Your task to perform on an android device: refresh tabs in the chrome app Image 0: 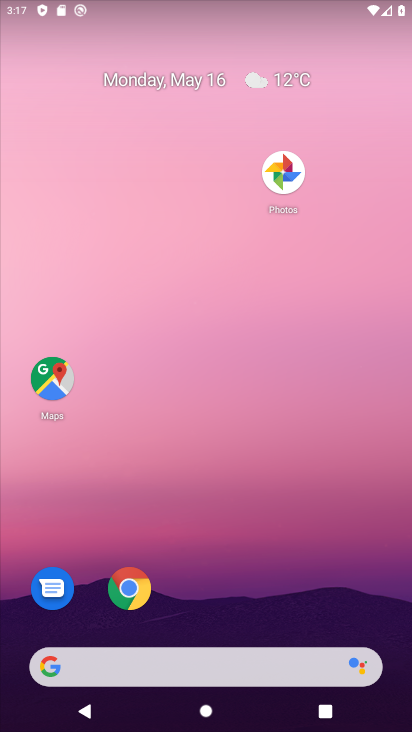
Step 0: click (127, 600)
Your task to perform on an android device: refresh tabs in the chrome app Image 1: 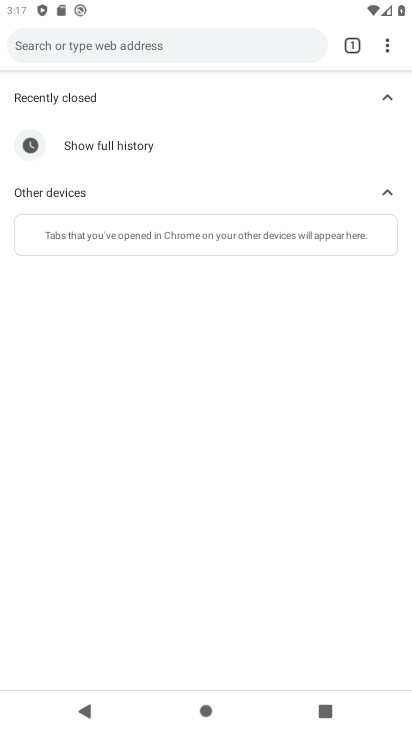
Step 1: click (376, 55)
Your task to perform on an android device: refresh tabs in the chrome app Image 2: 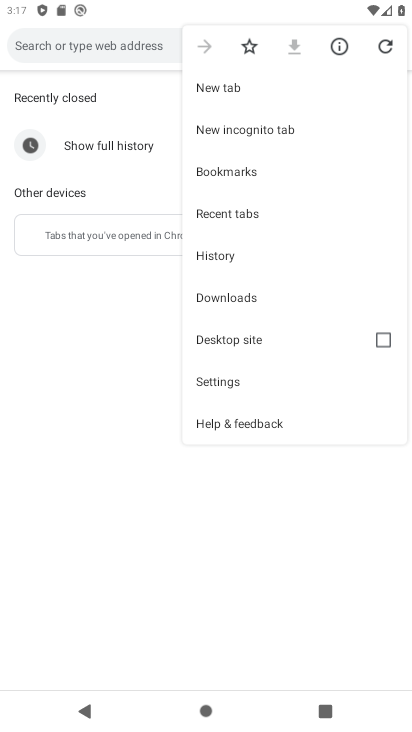
Step 2: click (379, 46)
Your task to perform on an android device: refresh tabs in the chrome app Image 3: 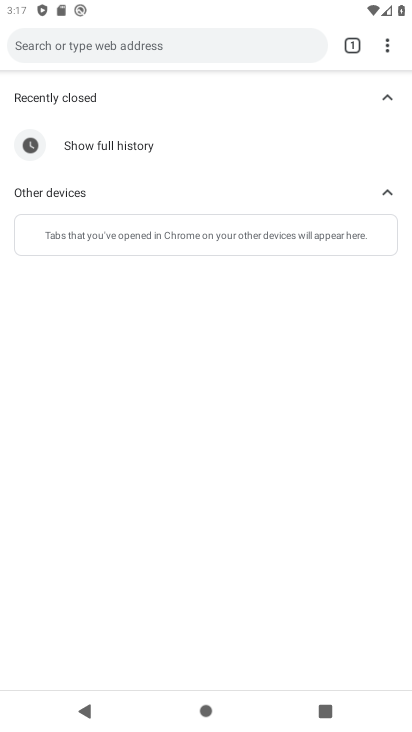
Step 3: click (404, 43)
Your task to perform on an android device: refresh tabs in the chrome app Image 4: 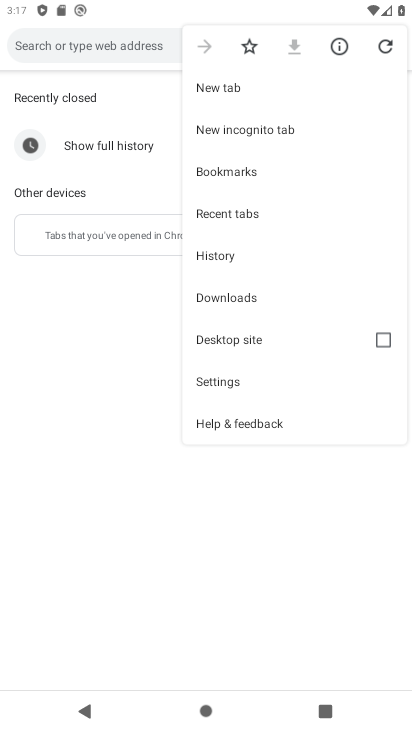
Step 4: click (392, 54)
Your task to perform on an android device: refresh tabs in the chrome app Image 5: 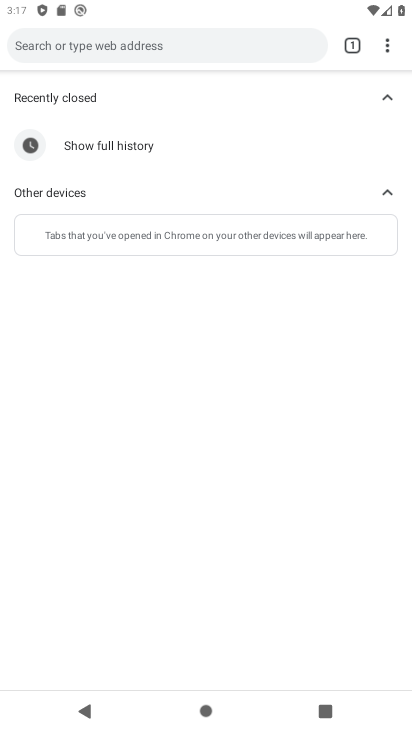
Step 5: task complete